Your task to perform on an android device: change the clock display to digital Image 0: 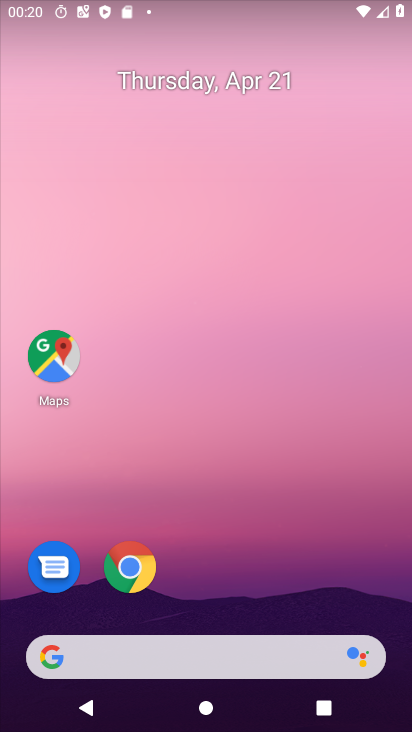
Step 0: drag from (253, 434) to (253, 299)
Your task to perform on an android device: change the clock display to digital Image 1: 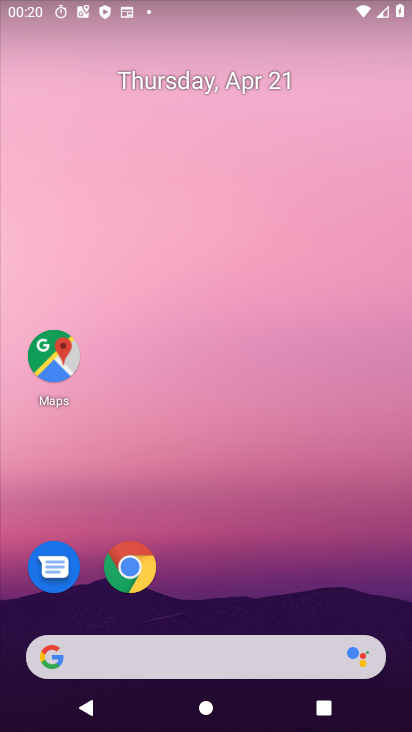
Step 1: drag from (208, 389) to (208, 258)
Your task to perform on an android device: change the clock display to digital Image 2: 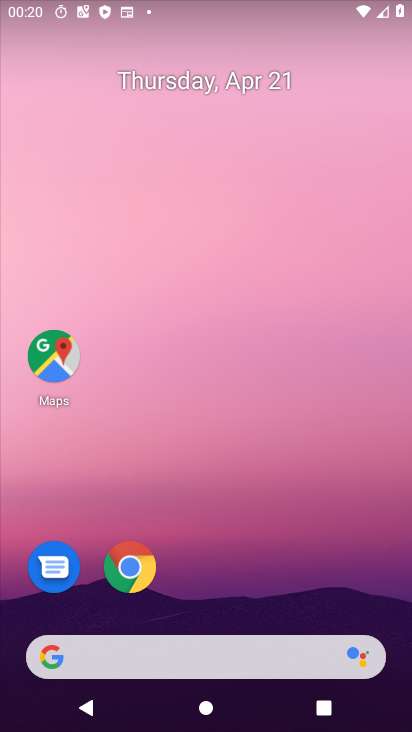
Step 2: drag from (213, 364) to (228, 211)
Your task to perform on an android device: change the clock display to digital Image 3: 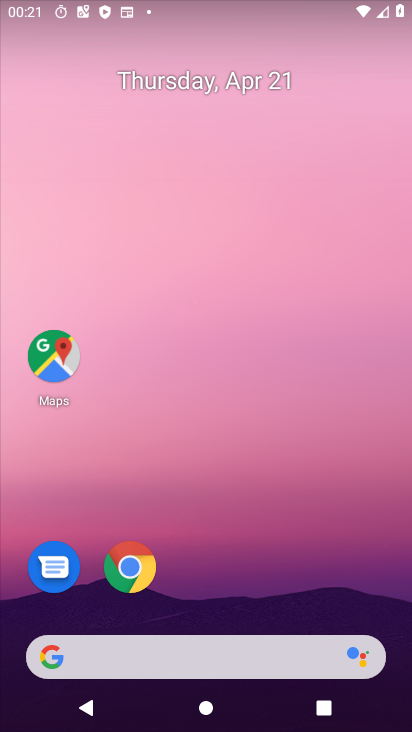
Step 3: drag from (224, 454) to (242, 144)
Your task to perform on an android device: change the clock display to digital Image 4: 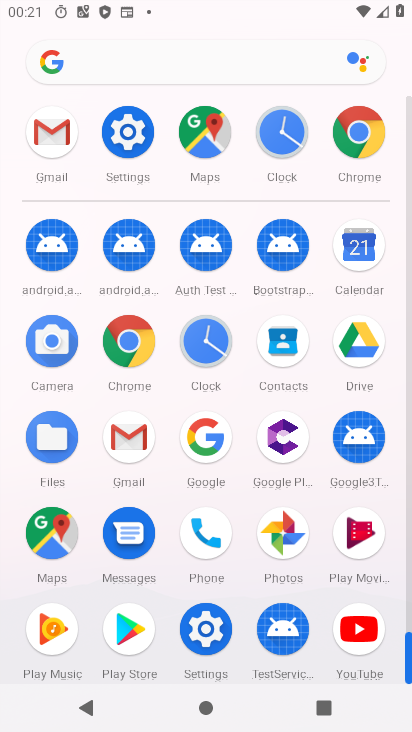
Step 4: click (201, 335)
Your task to perform on an android device: change the clock display to digital Image 5: 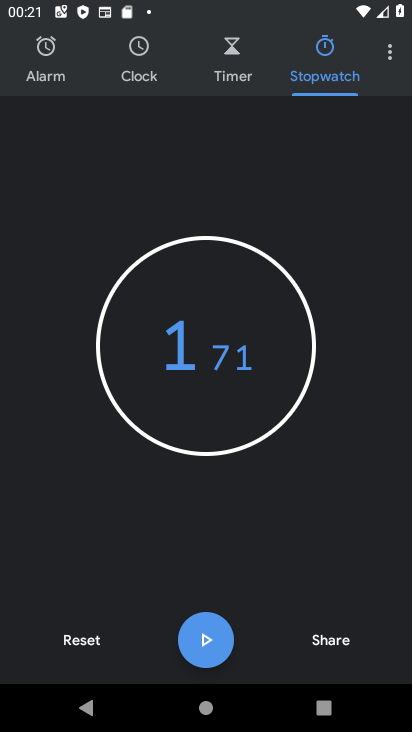
Step 5: click (386, 54)
Your task to perform on an android device: change the clock display to digital Image 6: 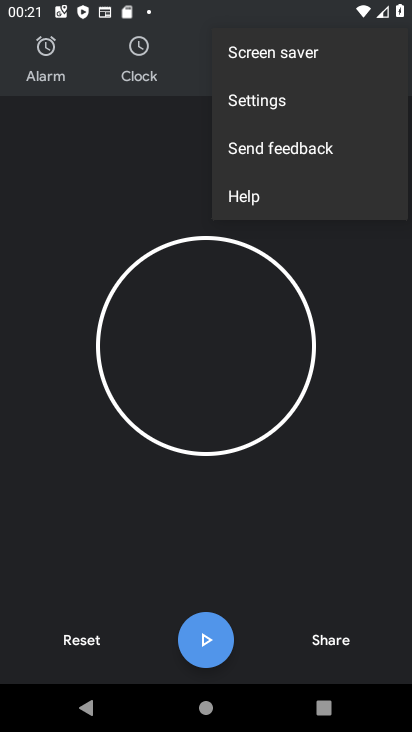
Step 6: click (316, 100)
Your task to perform on an android device: change the clock display to digital Image 7: 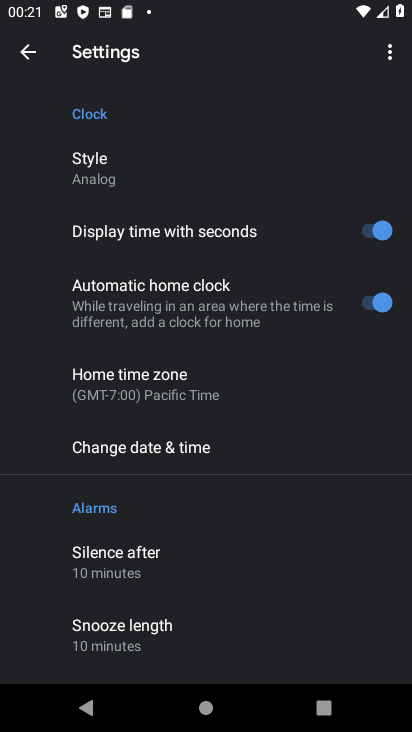
Step 7: click (119, 183)
Your task to perform on an android device: change the clock display to digital Image 8: 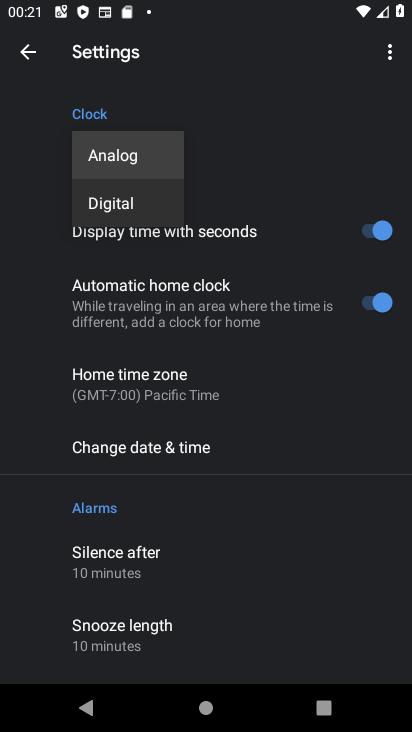
Step 8: click (124, 206)
Your task to perform on an android device: change the clock display to digital Image 9: 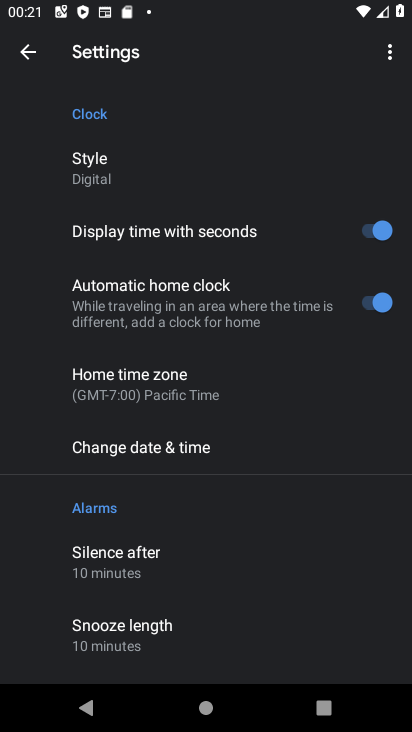
Step 9: task complete